Your task to perform on an android device: open chrome privacy settings Image 0: 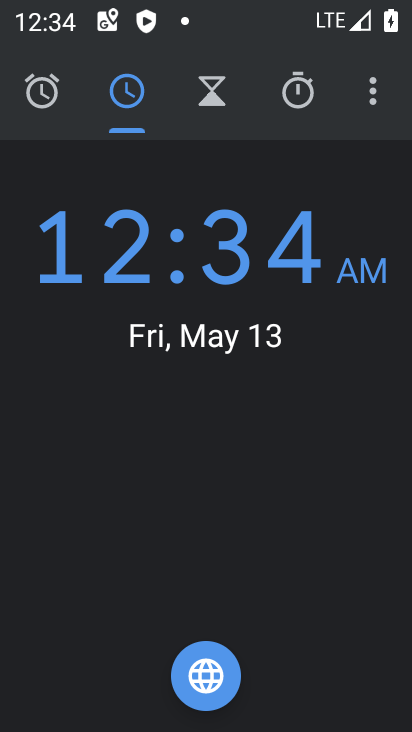
Step 0: press home button
Your task to perform on an android device: open chrome privacy settings Image 1: 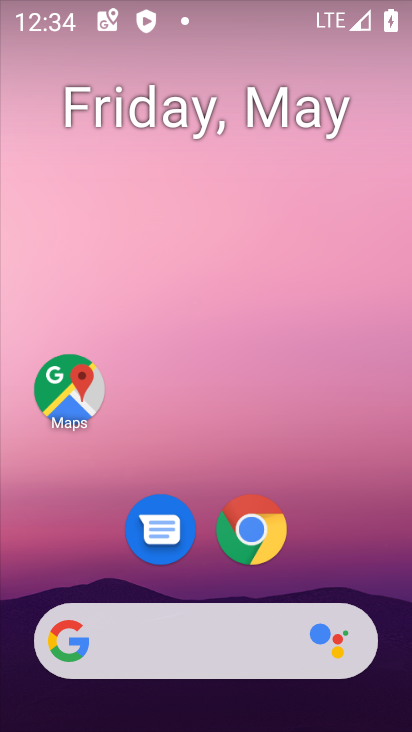
Step 1: drag from (326, 544) to (120, 202)
Your task to perform on an android device: open chrome privacy settings Image 2: 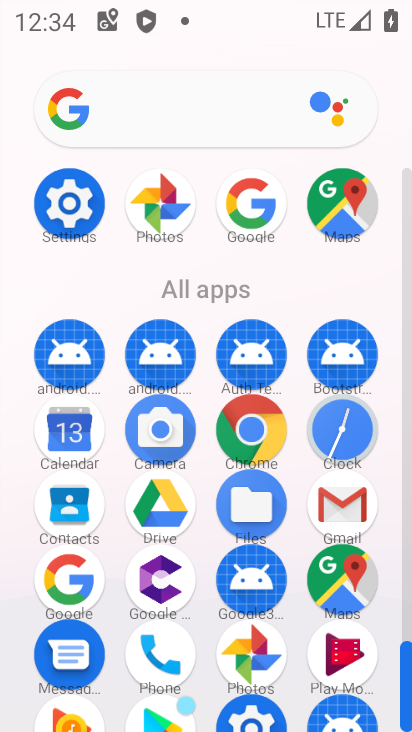
Step 2: click (242, 419)
Your task to perform on an android device: open chrome privacy settings Image 3: 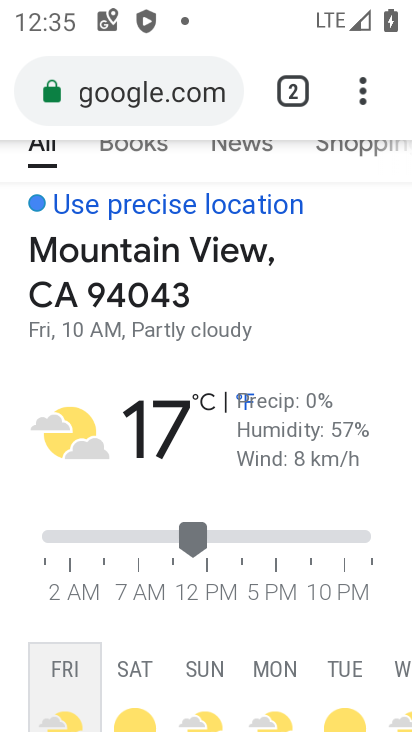
Step 3: click (362, 98)
Your task to perform on an android device: open chrome privacy settings Image 4: 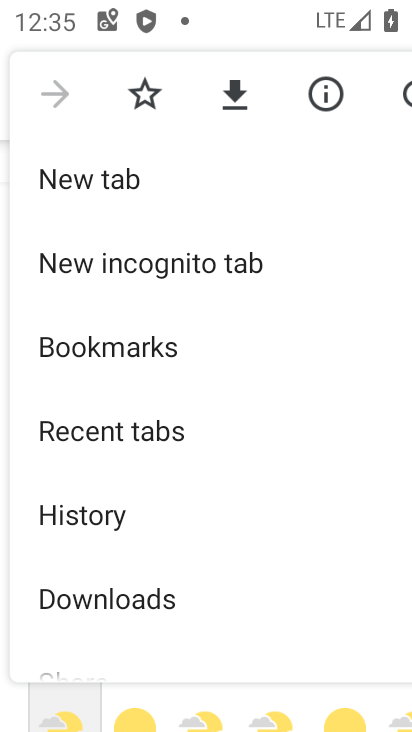
Step 4: drag from (117, 627) to (91, 194)
Your task to perform on an android device: open chrome privacy settings Image 5: 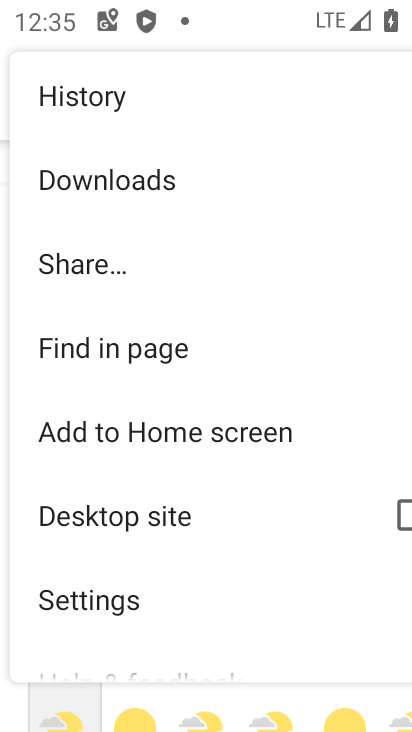
Step 5: click (97, 604)
Your task to perform on an android device: open chrome privacy settings Image 6: 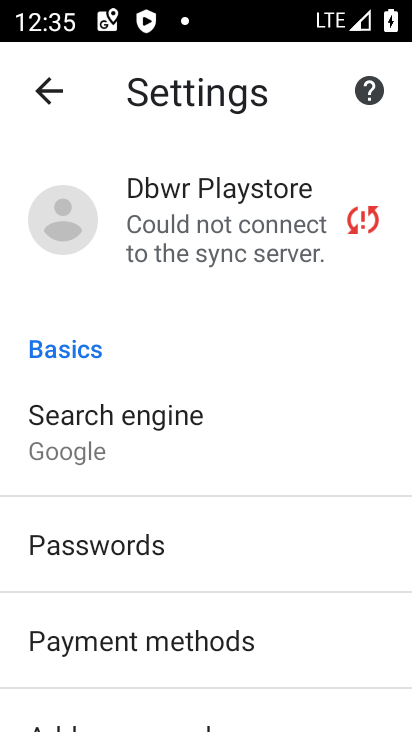
Step 6: drag from (210, 669) to (161, 199)
Your task to perform on an android device: open chrome privacy settings Image 7: 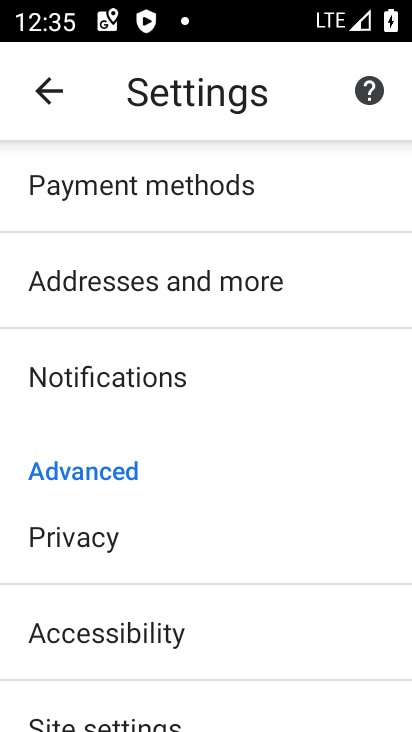
Step 7: click (78, 528)
Your task to perform on an android device: open chrome privacy settings Image 8: 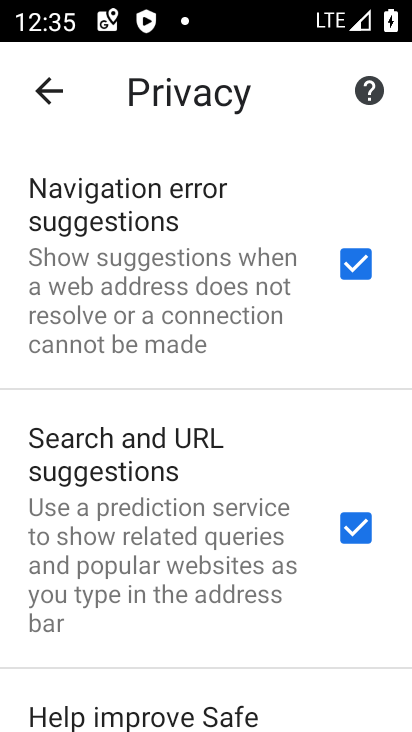
Step 8: task complete